Your task to perform on an android device: Go to Yahoo.com Image 0: 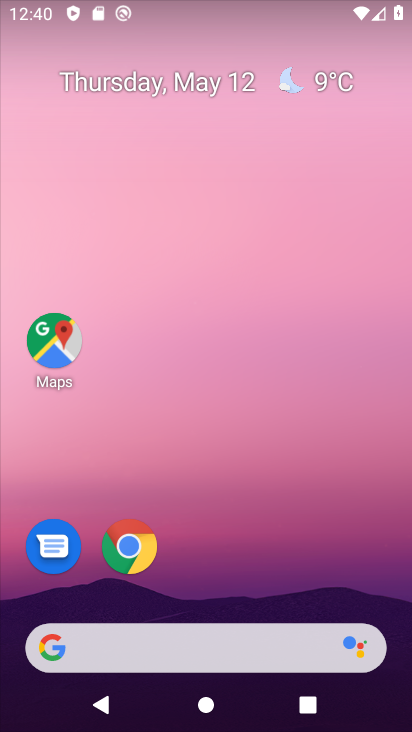
Step 0: drag from (306, 599) to (331, 204)
Your task to perform on an android device: Go to Yahoo.com Image 1: 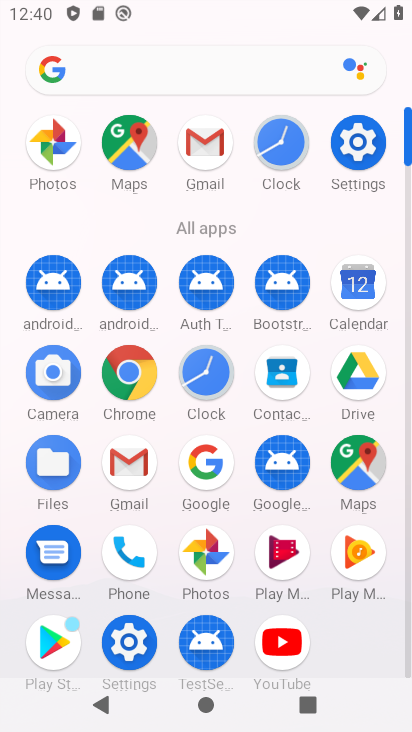
Step 1: click (118, 375)
Your task to perform on an android device: Go to Yahoo.com Image 2: 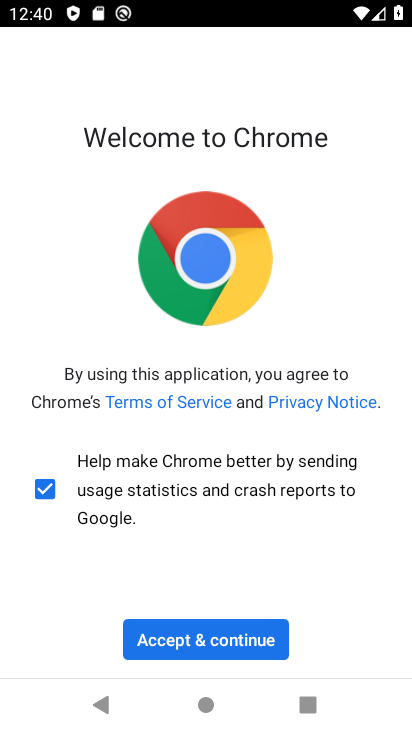
Step 2: click (184, 631)
Your task to perform on an android device: Go to Yahoo.com Image 3: 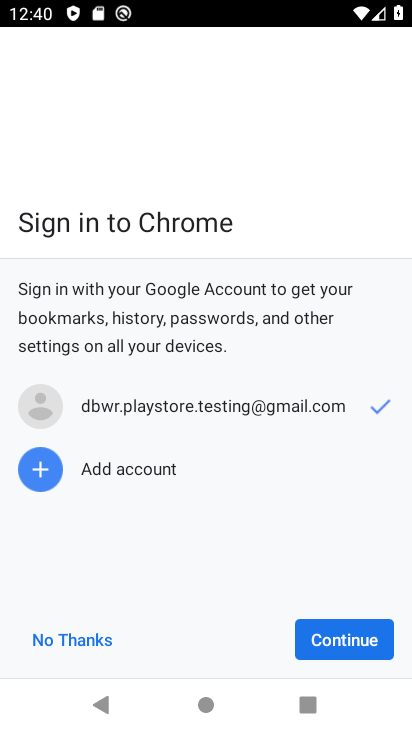
Step 3: click (333, 638)
Your task to perform on an android device: Go to Yahoo.com Image 4: 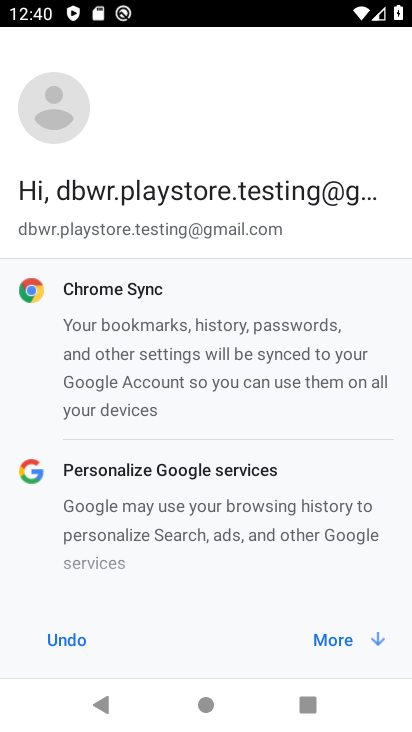
Step 4: click (370, 637)
Your task to perform on an android device: Go to Yahoo.com Image 5: 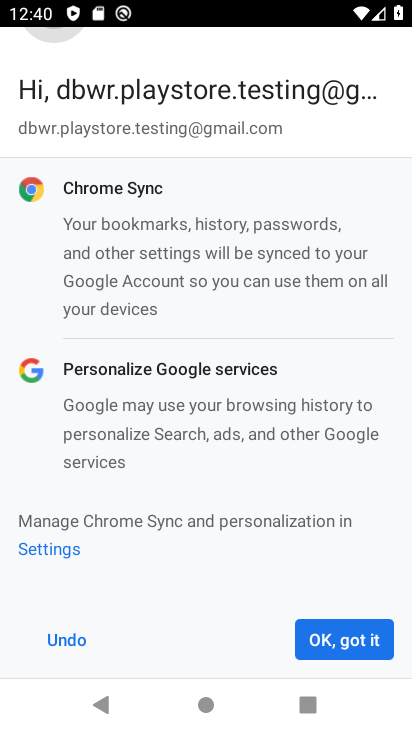
Step 5: click (347, 644)
Your task to perform on an android device: Go to Yahoo.com Image 6: 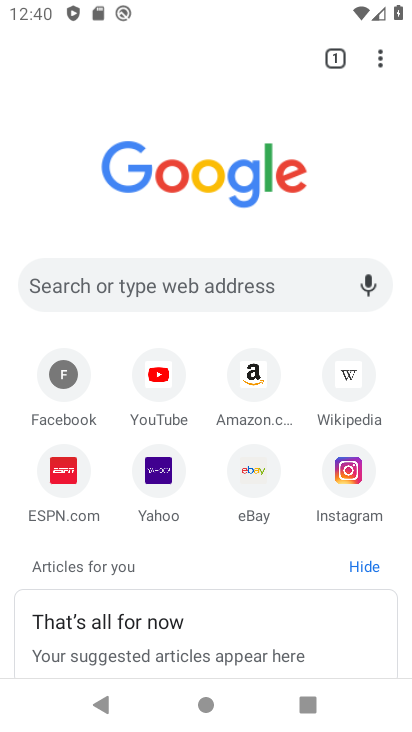
Step 6: click (165, 471)
Your task to perform on an android device: Go to Yahoo.com Image 7: 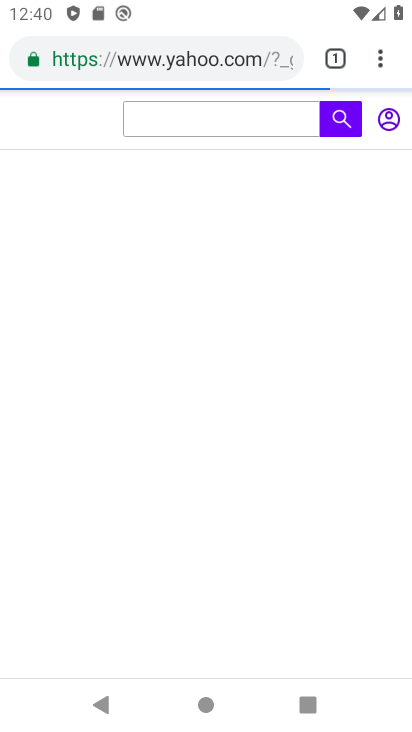
Step 7: task complete